Your task to perform on an android device: turn off airplane mode Image 0: 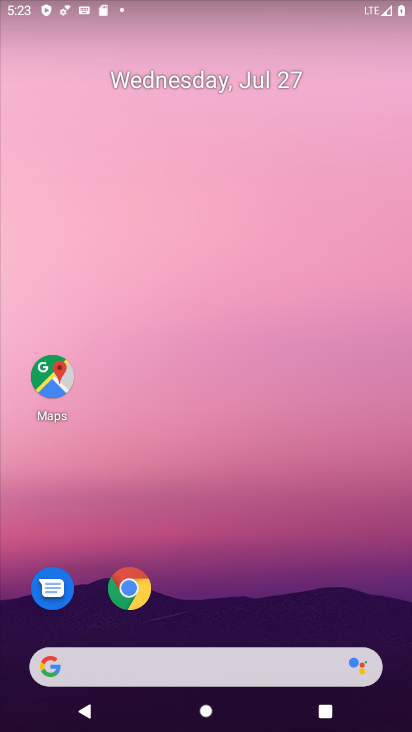
Step 0: drag from (296, 612) to (278, 9)
Your task to perform on an android device: turn off airplane mode Image 1: 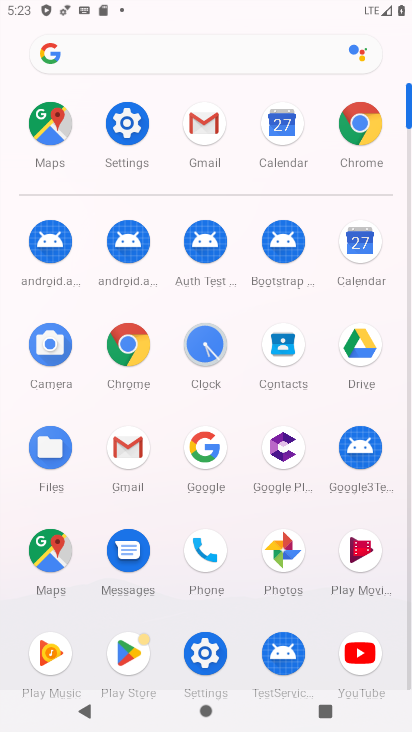
Step 1: click (115, 118)
Your task to perform on an android device: turn off airplane mode Image 2: 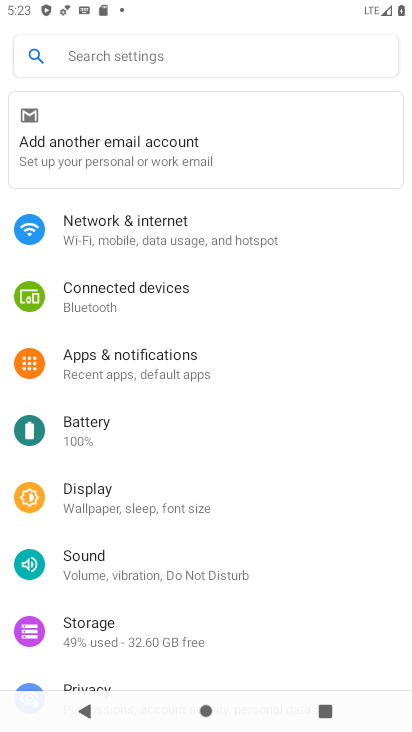
Step 2: click (180, 232)
Your task to perform on an android device: turn off airplane mode Image 3: 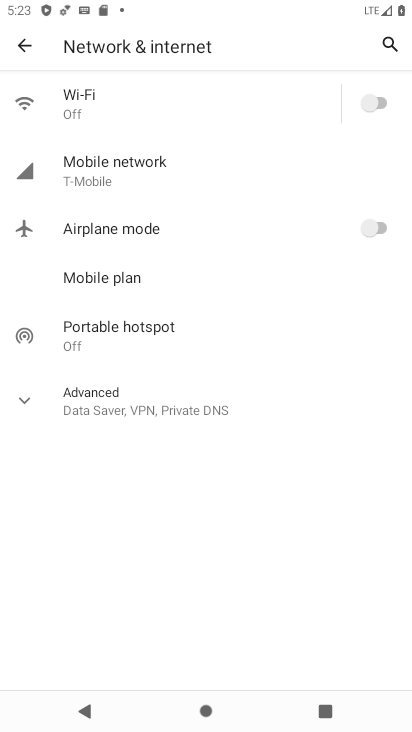
Step 3: task complete